Your task to perform on an android device: toggle translation in the chrome app Image 0: 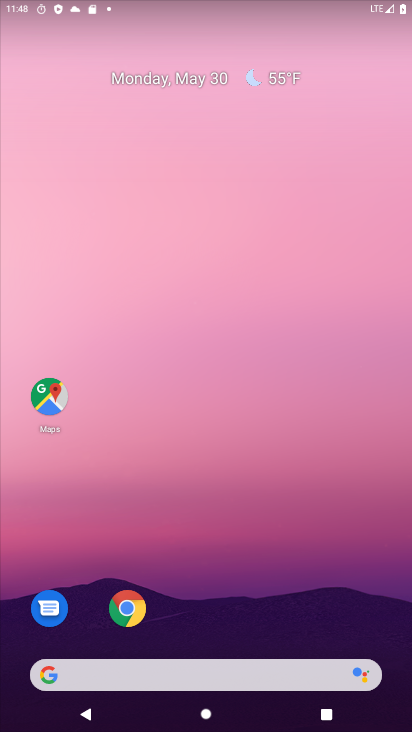
Step 0: click (132, 610)
Your task to perform on an android device: toggle translation in the chrome app Image 1: 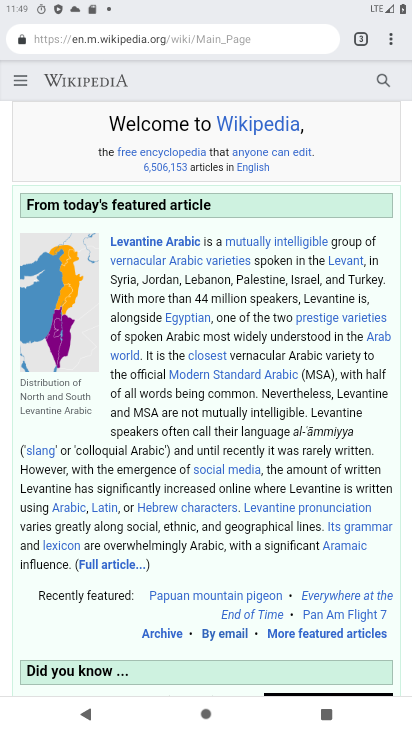
Step 1: click (394, 40)
Your task to perform on an android device: toggle translation in the chrome app Image 2: 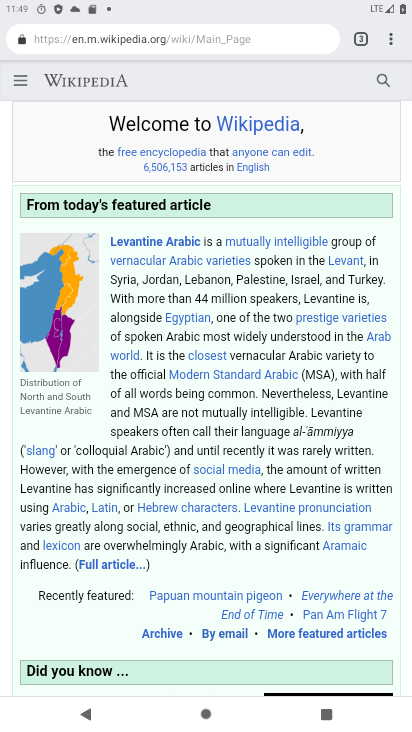
Step 2: click (388, 39)
Your task to perform on an android device: toggle translation in the chrome app Image 3: 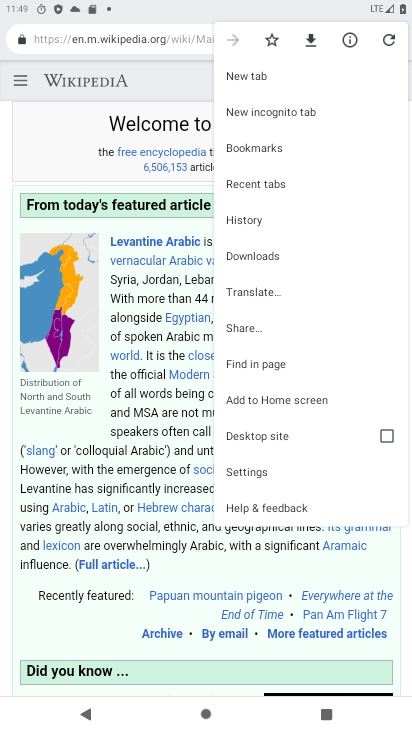
Step 3: click (240, 469)
Your task to perform on an android device: toggle translation in the chrome app Image 4: 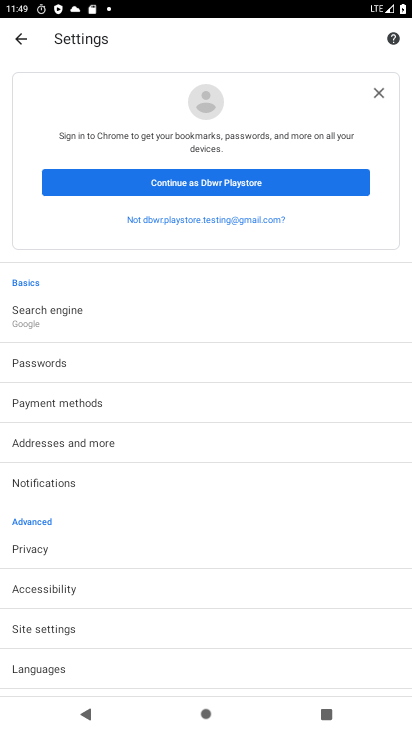
Step 4: click (45, 668)
Your task to perform on an android device: toggle translation in the chrome app Image 5: 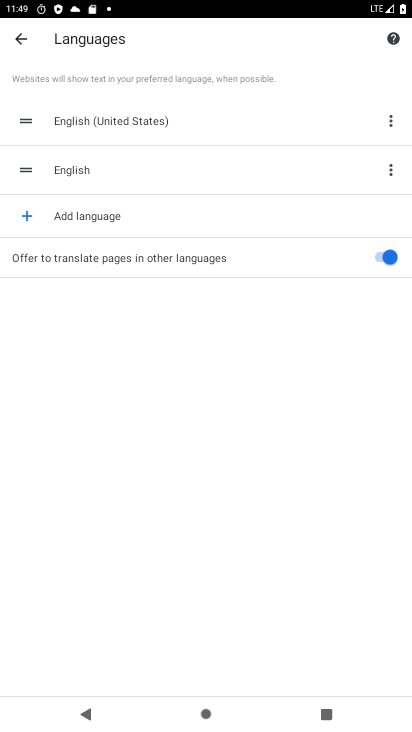
Step 5: click (386, 256)
Your task to perform on an android device: toggle translation in the chrome app Image 6: 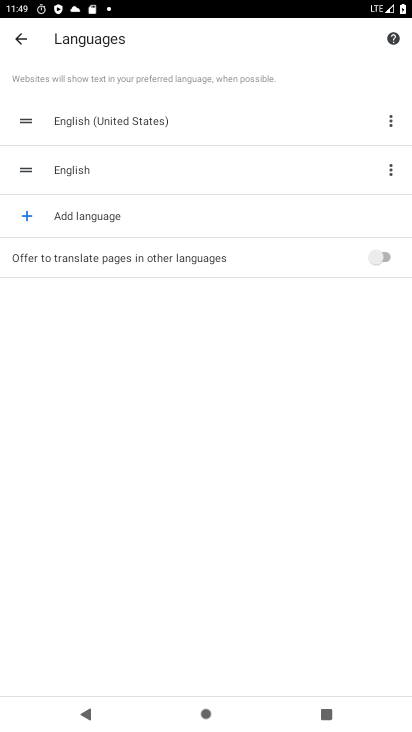
Step 6: task complete